Your task to perform on an android device: Open sound settings Image 0: 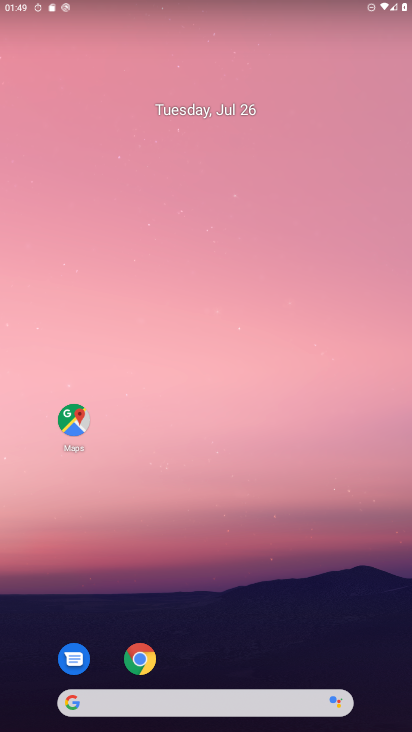
Step 0: drag from (36, 693) to (223, 66)
Your task to perform on an android device: Open sound settings Image 1: 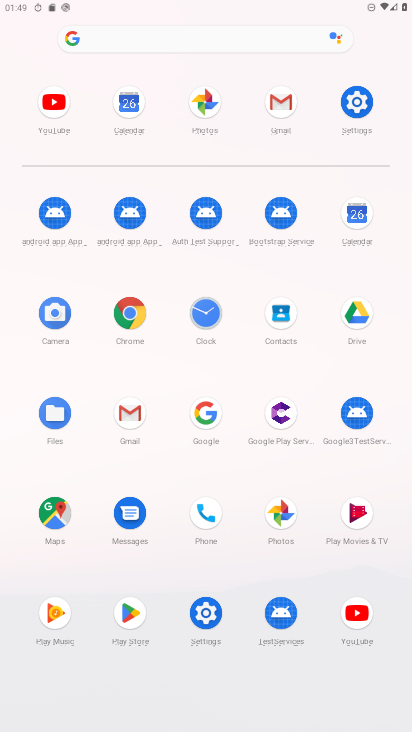
Step 1: click (196, 600)
Your task to perform on an android device: Open sound settings Image 2: 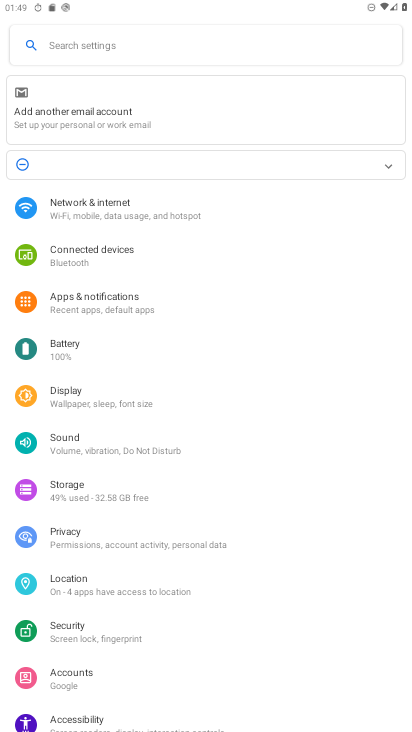
Step 2: click (89, 447)
Your task to perform on an android device: Open sound settings Image 3: 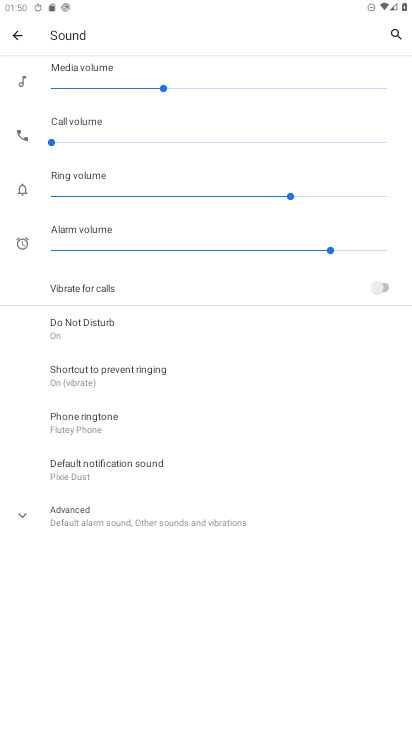
Step 3: task complete